Your task to perform on an android device: Find coffee shops on Maps Image 0: 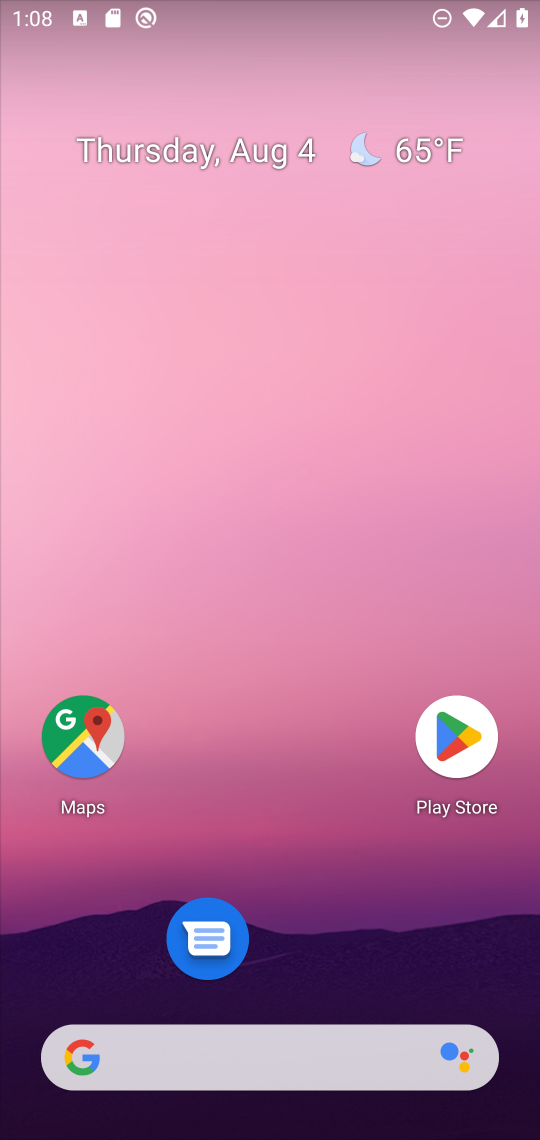
Step 0: click (104, 714)
Your task to perform on an android device: Find coffee shops on Maps Image 1: 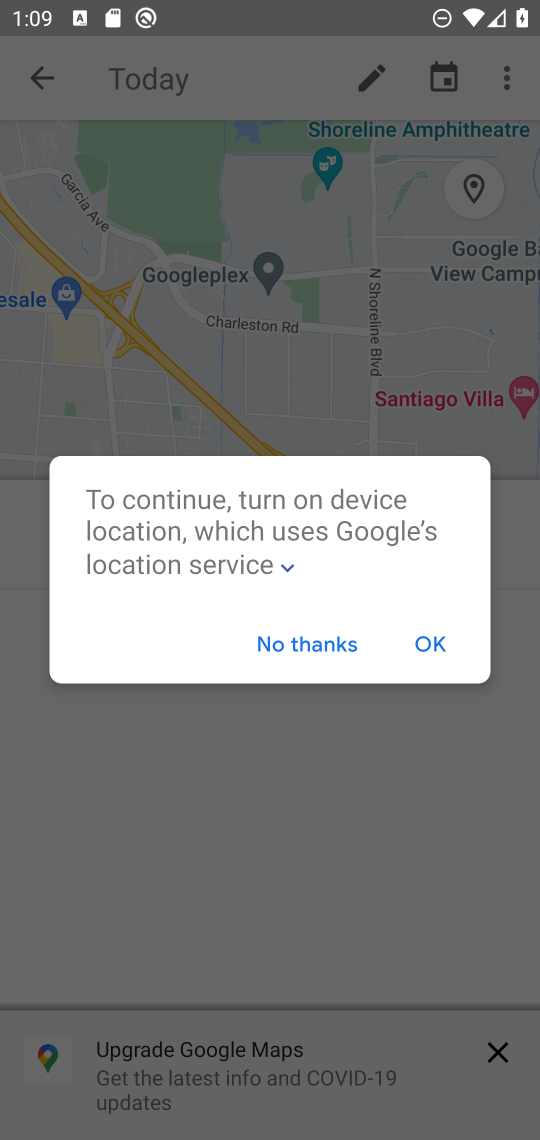
Step 1: click (433, 636)
Your task to perform on an android device: Find coffee shops on Maps Image 2: 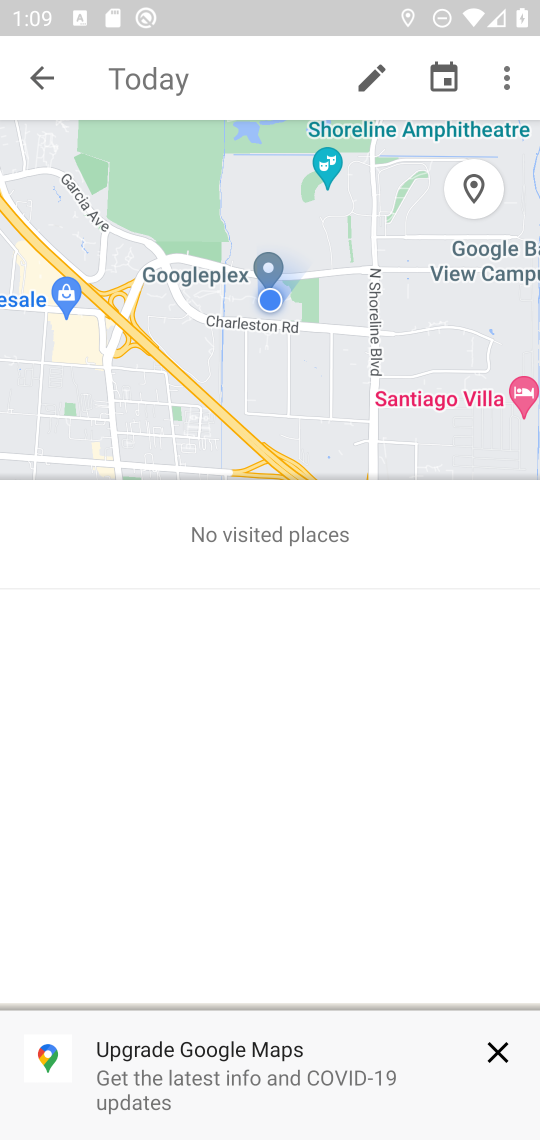
Step 2: click (54, 81)
Your task to perform on an android device: Find coffee shops on Maps Image 3: 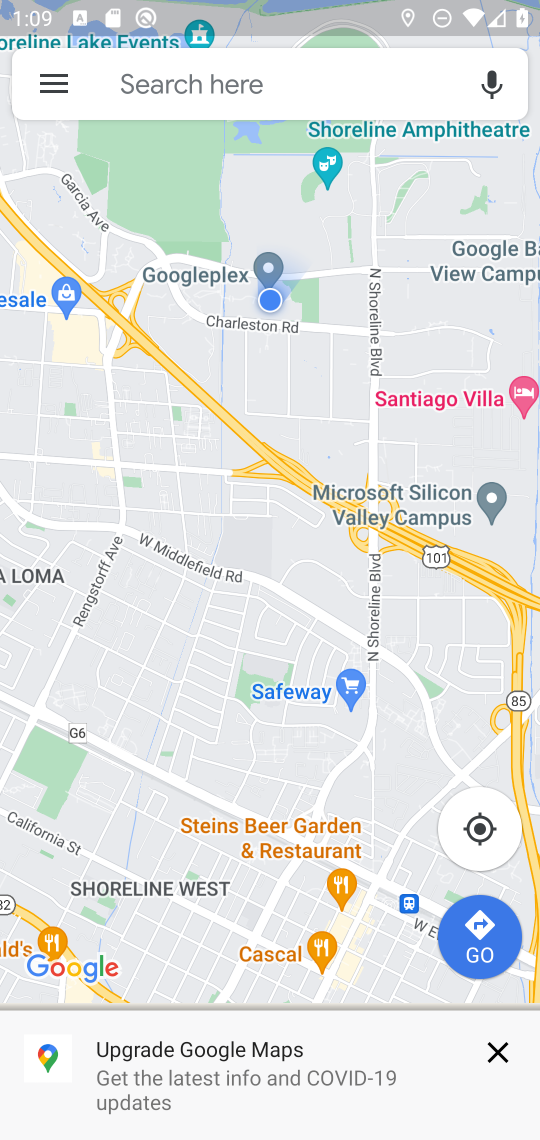
Step 3: click (251, 98)
Your task to perform on an android device: Find coffee shops on Maps Image 4: 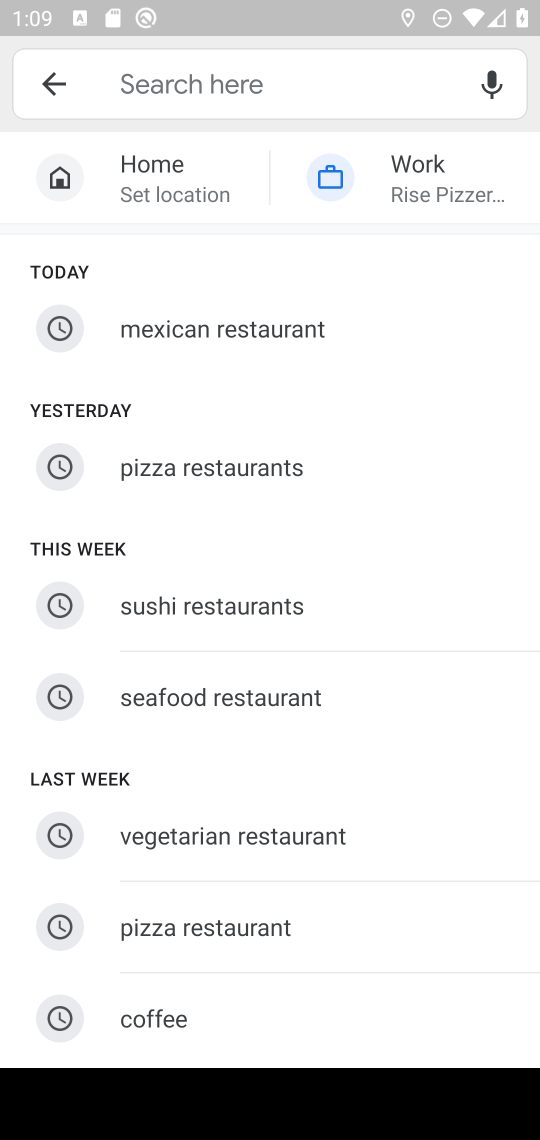
Step 4: click (220, 1009)
Your task to perform on an android device: Find coffee shops on Maps Image 5: 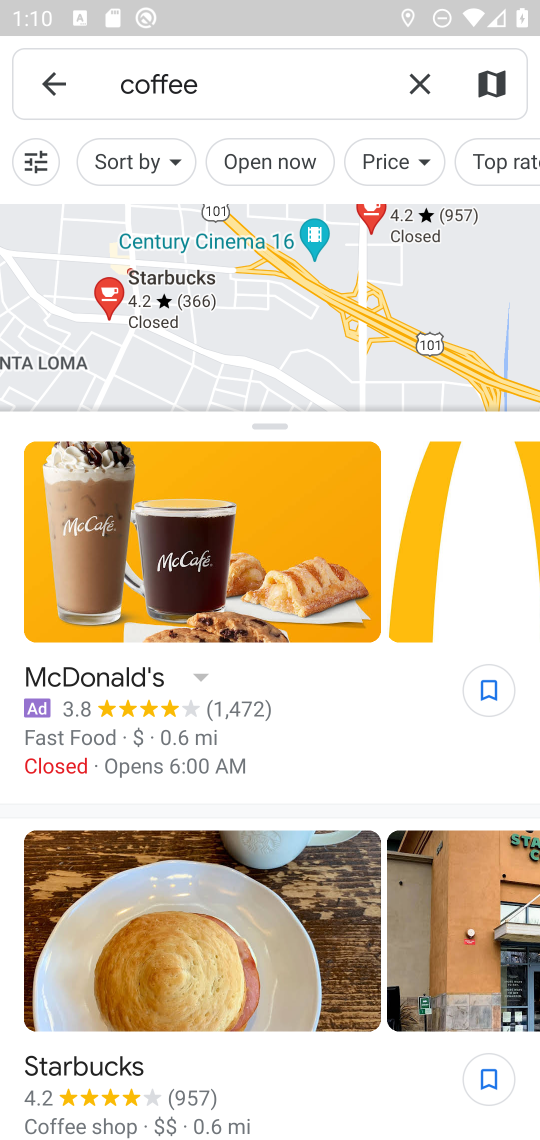
Step 5: task complete